Your task to perform on an android device: set an alarm Image 0: 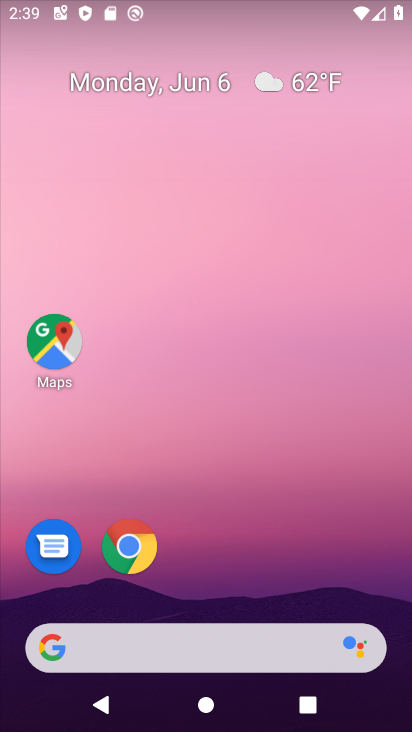
Step 0: drag from (248, 608) to (225, 307)
Your task to perform on an android device: set an alarm Image 1: 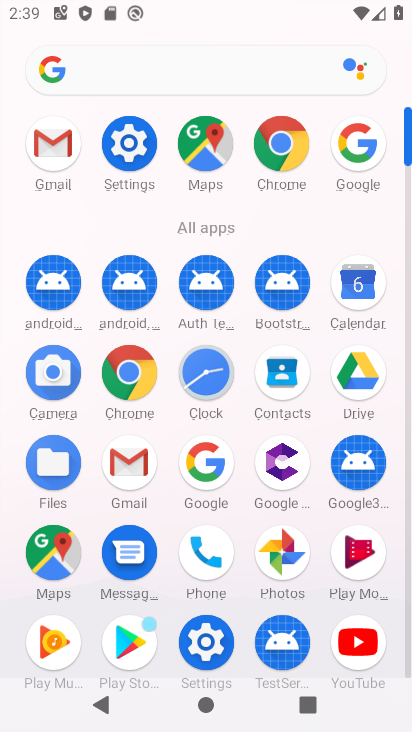
Step 1: click (188, 364)
Your task to perform on an android device: set an alarm Image 2: 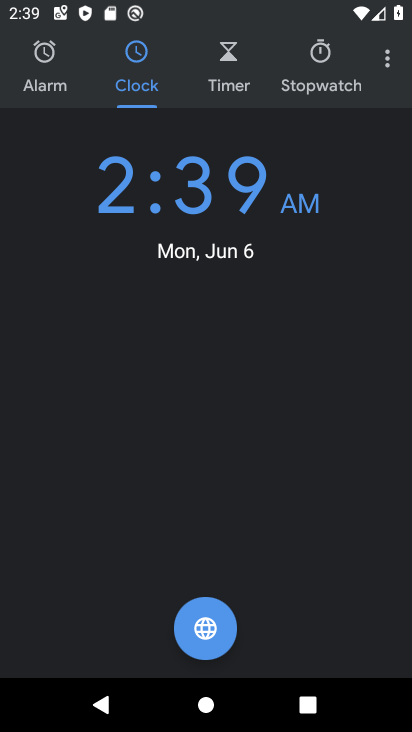
Step 2: click (53, 76)
Your task to perform on an android device: set an alarm Image 3: 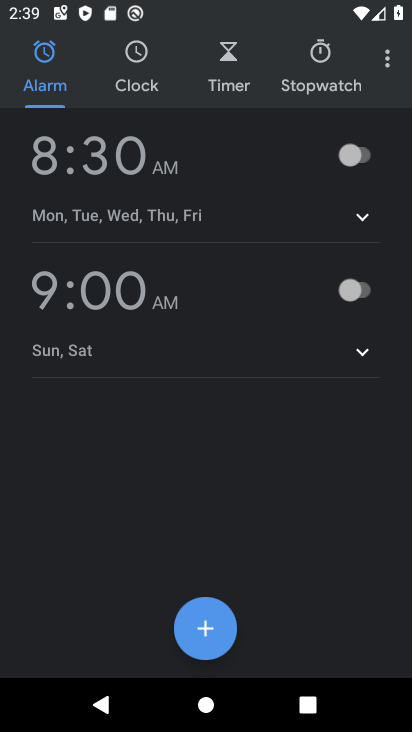
Step 3: click (360, 145)
Your task to perform on an android device: set an alarm Image 4: 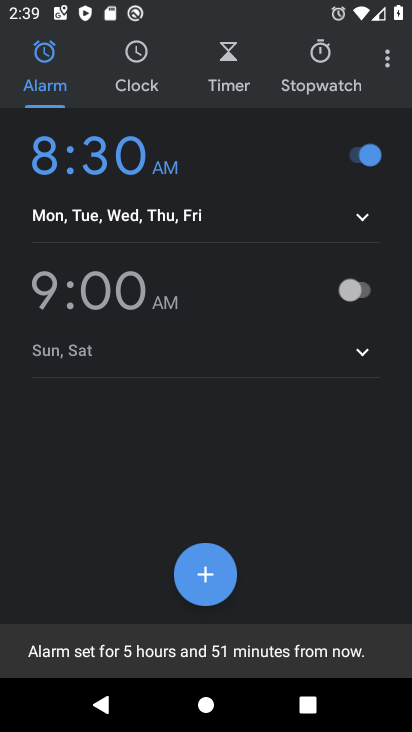
Step 4: task complete